Your task to perform on an android device: Go to Google Image 0: 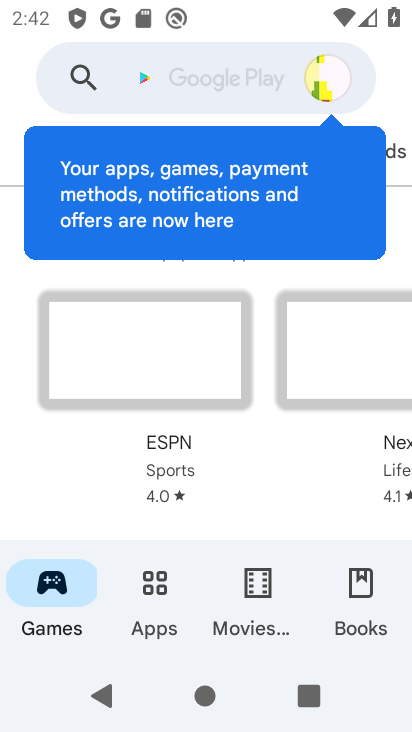
Step 0: press home button
Your task to perform on an android device: Go to Google Image 1: 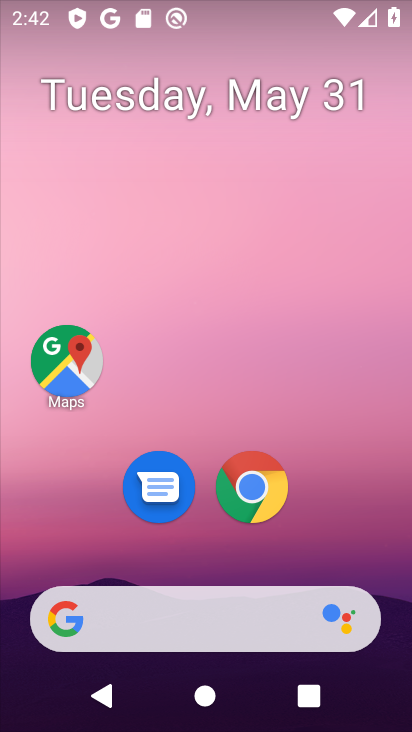
Step 1: drag from (79, 558) to (169, 158)
Your task to perform on an android device: Go to Google Image 2: 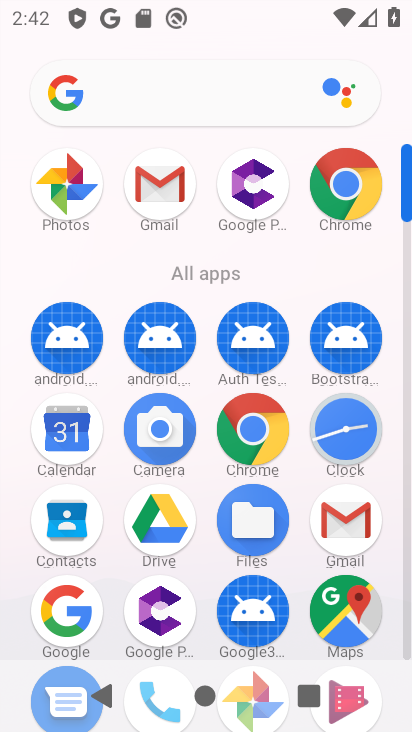
Step 2: drag from (197, 559) to (256, 318)
Your task to perform on an android device: Go to Google Image 3: 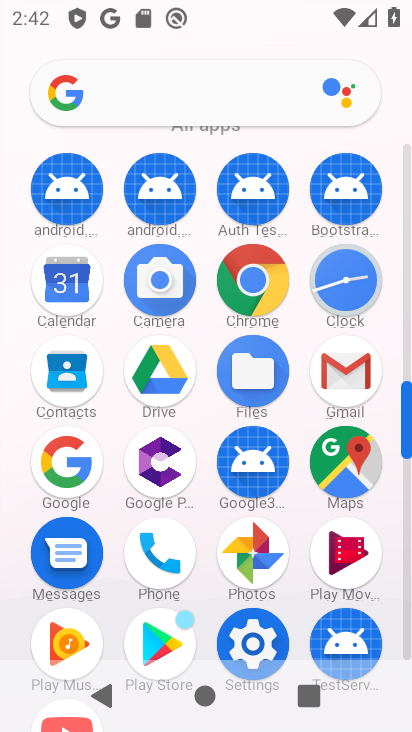
Step 3: click (61, 471)
Your task to perform on an android device: Go to Google Image 4: 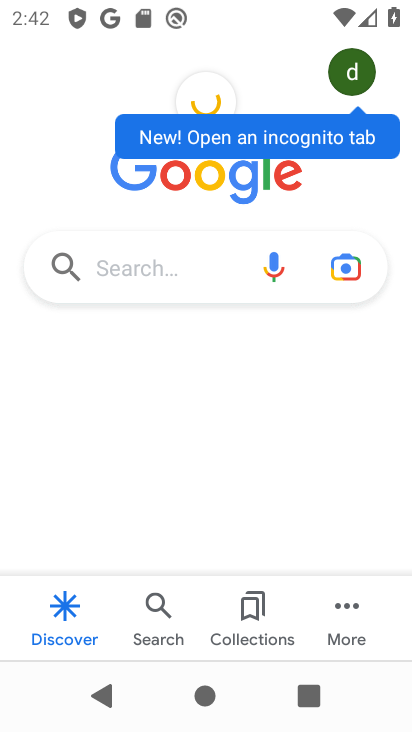
Step 4: task complete